Your task to perform on an android device: open app "The Home Depot" Image 0: 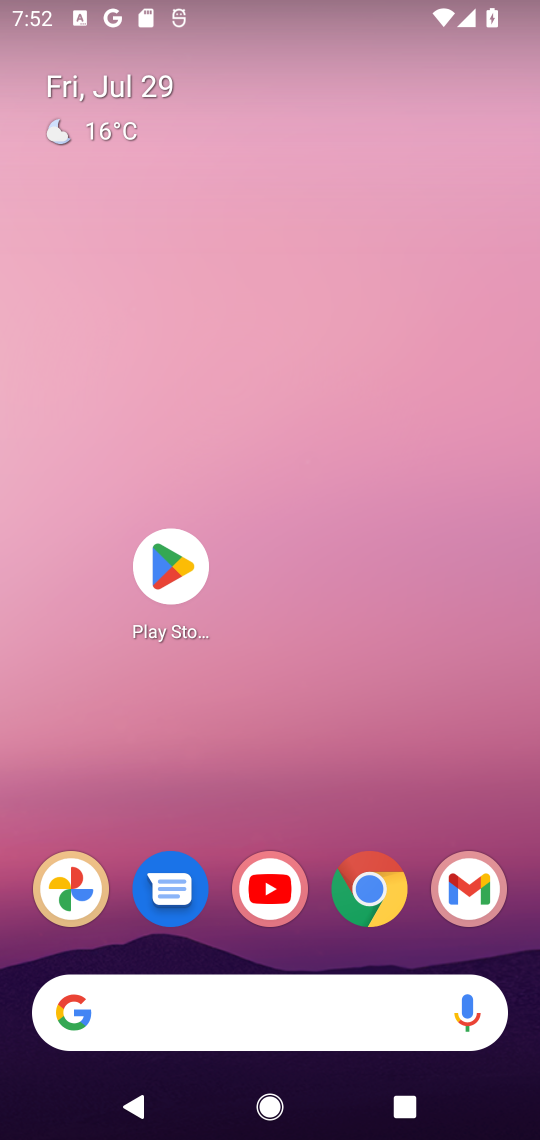
Step 0: press home button
Your task to perform on an android device: open app "The Home Depot" Image 1: 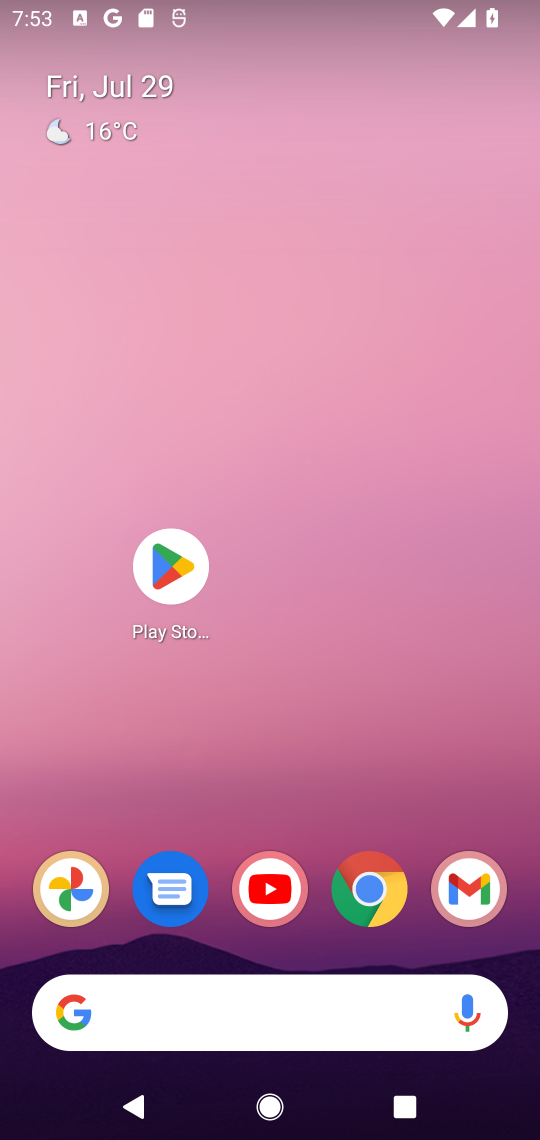
Step 1: click (181, 560)
Your task to perform on an android device: open app "The Home Depot" Image 2: 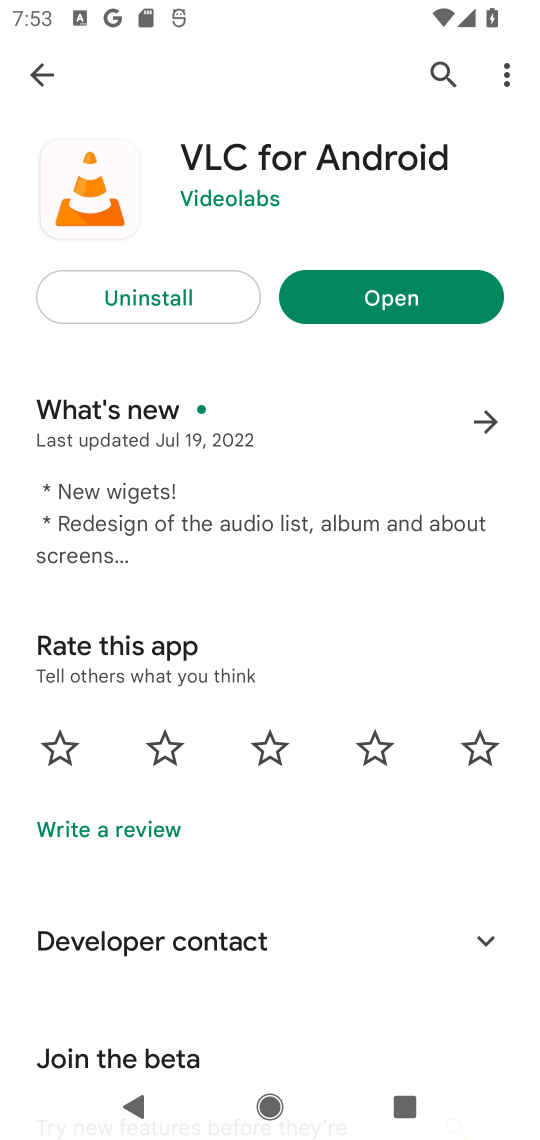
Step 2: click (440, 68)
Your task to perform on an android device: open app "The Home Depot" Image 3: 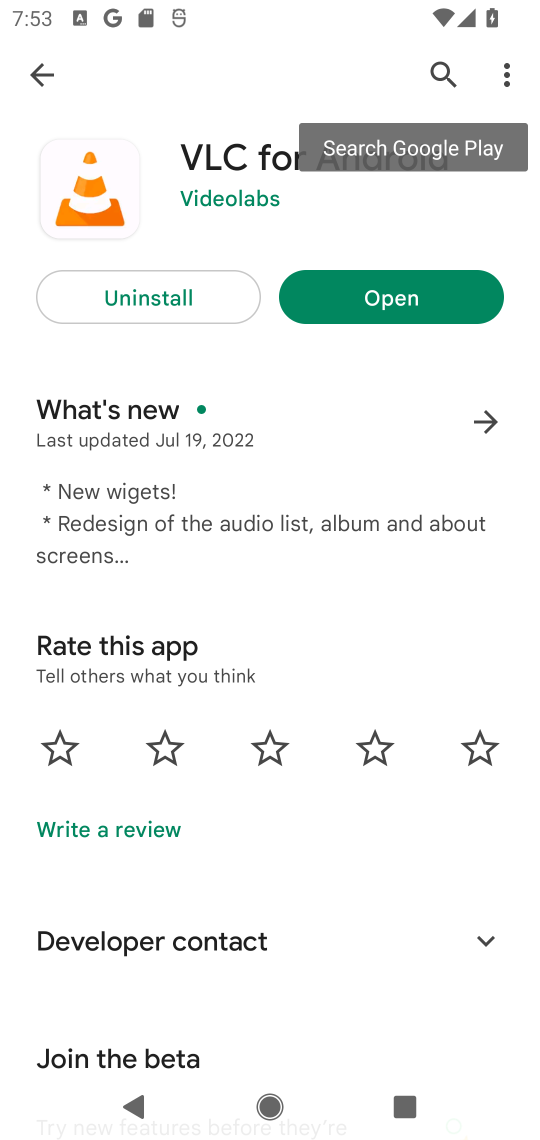
Step 3: click (433, 63)
Your task to perform on an android device: open app "The Home Depot" Image 4: 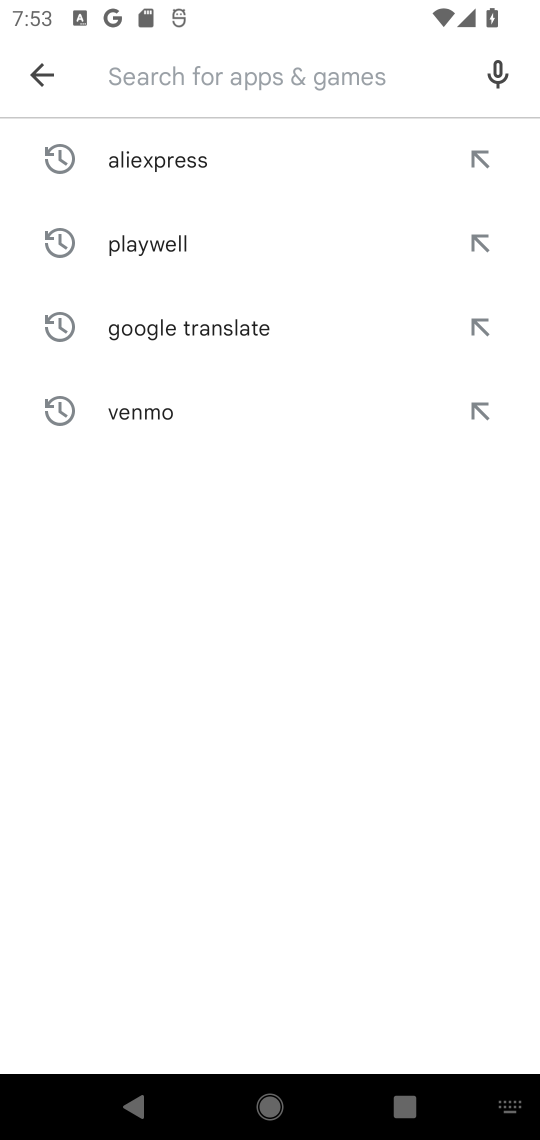
Step 4: type "The Home Depot"
Your task to perform on an android device: open app "The Home Depot" Image 5: 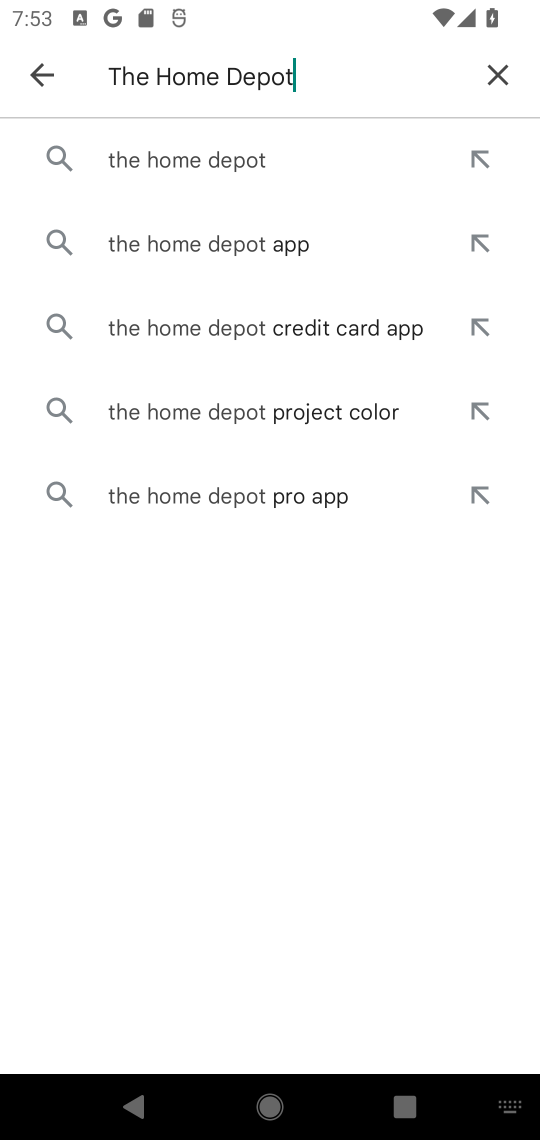
Step 5: click (241, 152)
Your task to perform on an android device: open app "The Home Depot" Image 6: 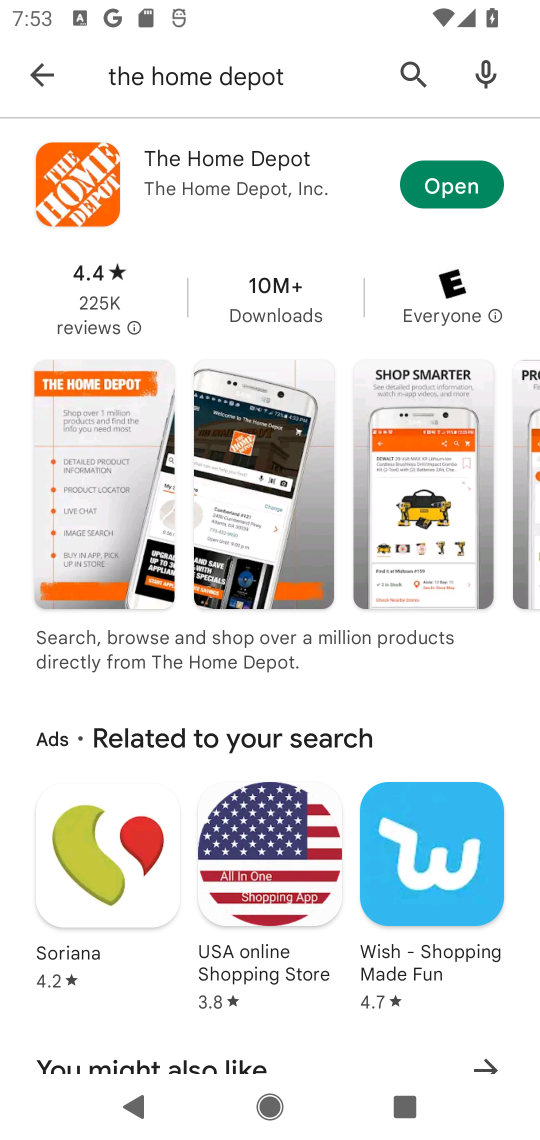
Step 6: click (439, 167)
Your task to perform on an android device: open app "The Home Depot" Image 7: 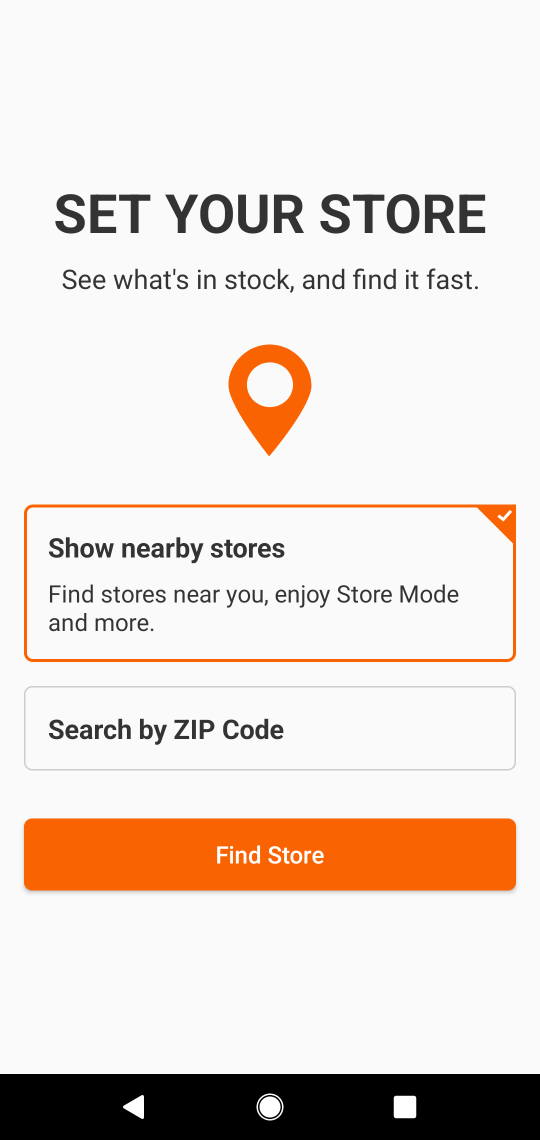
Step 7: task complete